Your task to perform on an android device: uninstall "LinkedIn" Image 0: 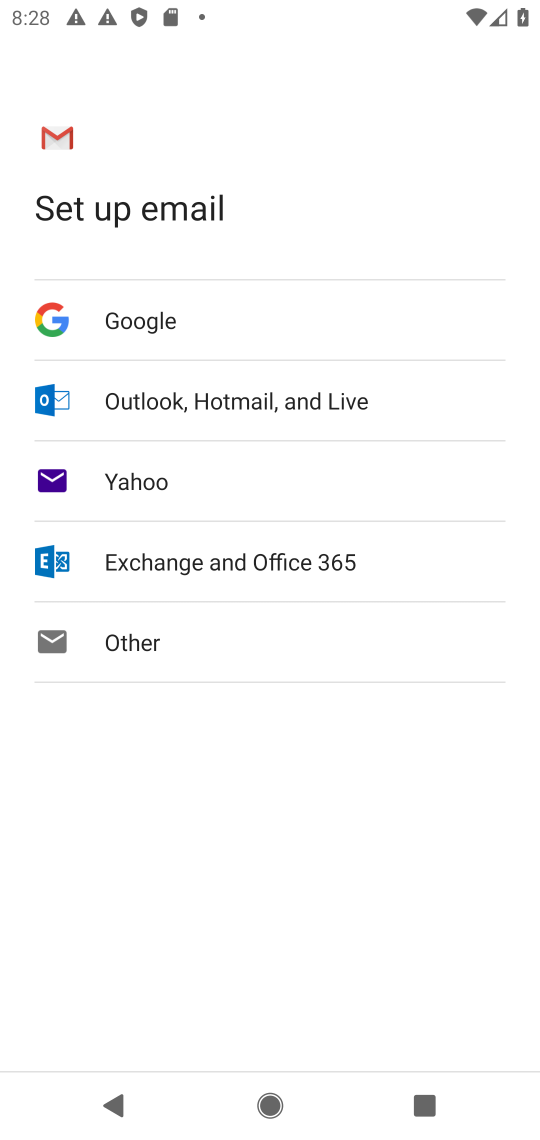
Step 0: press home button
Your task to perform on an android device: uninstall "LinkedIn" Image 1: 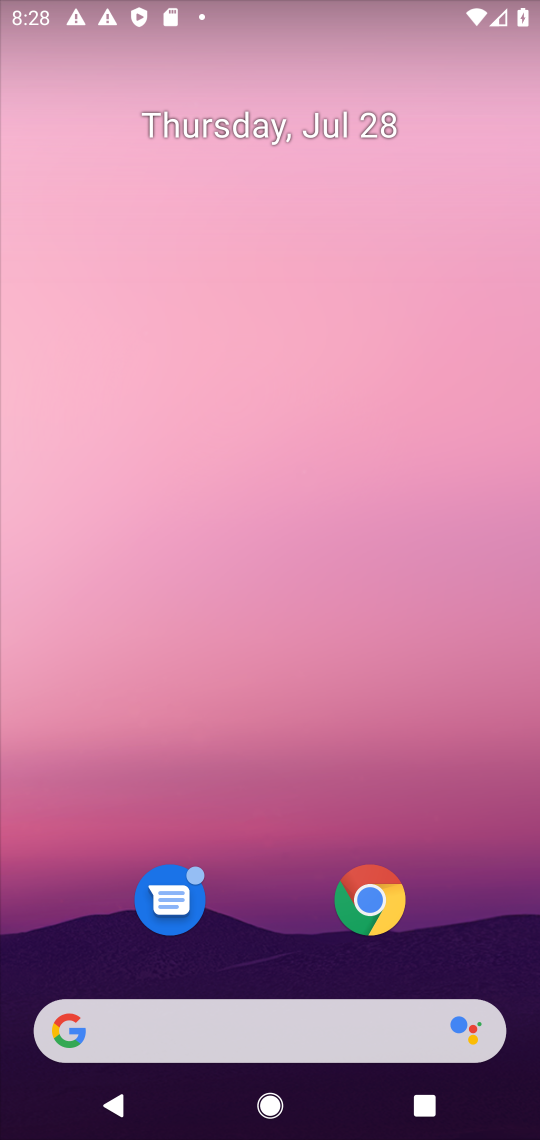
Step 1: task complete